Your task to perform on an android device: turn off sleep mode Image 0: 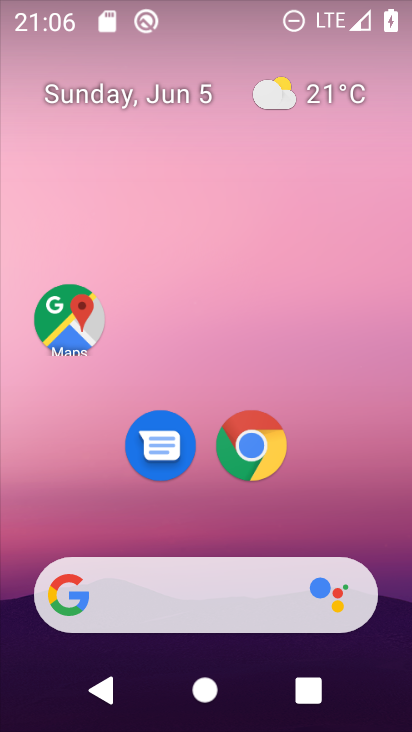
Step 0: drag from (368, 493) to (356, 169)
Your task to perform on an android device: turn off sleep mode Image 1: 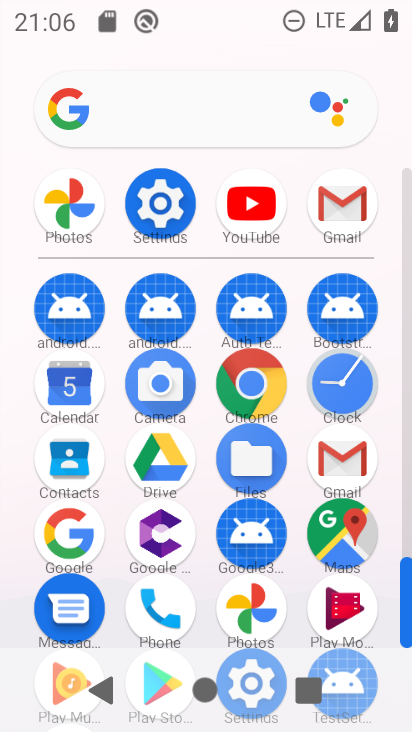
Step 1: click (160, 212)
Your task to perform on an android device: turn off sleep mode Image 2: 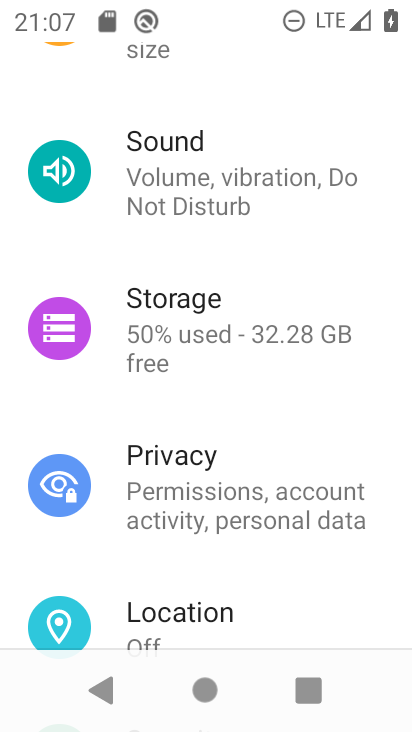
Step 2: drag from (351, 226) to (334, 689)
Your task to perform on an android device: turn off sleep mode Image 3: 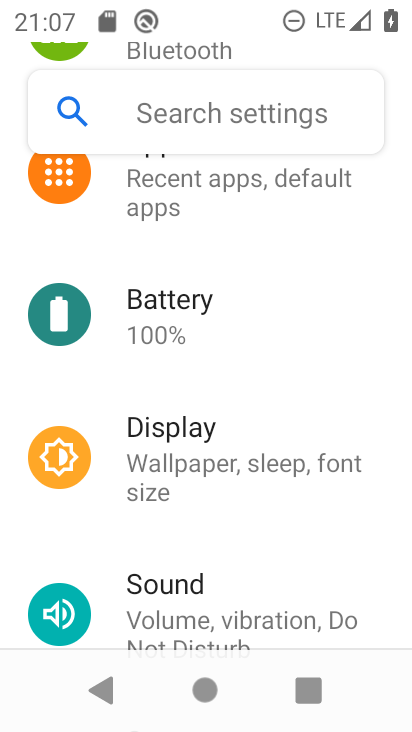
Step 3: click (274, 453)
Your task to perform on an android device: turn off sleep mode Image 4: 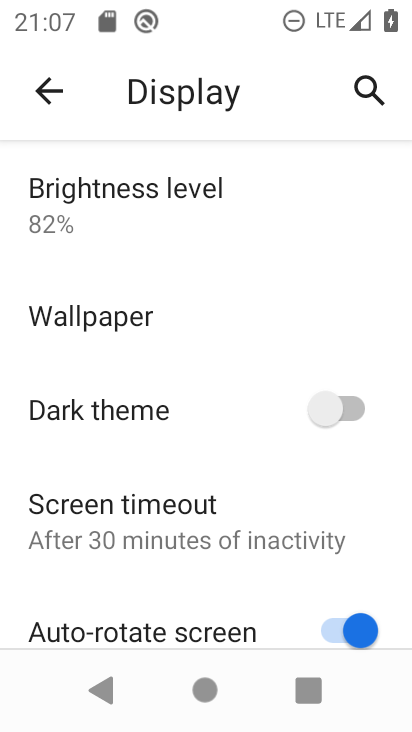
Step 4: task complete